Your task to perform on an android device: open the mobile data screen to see how much data has been used Image 0: 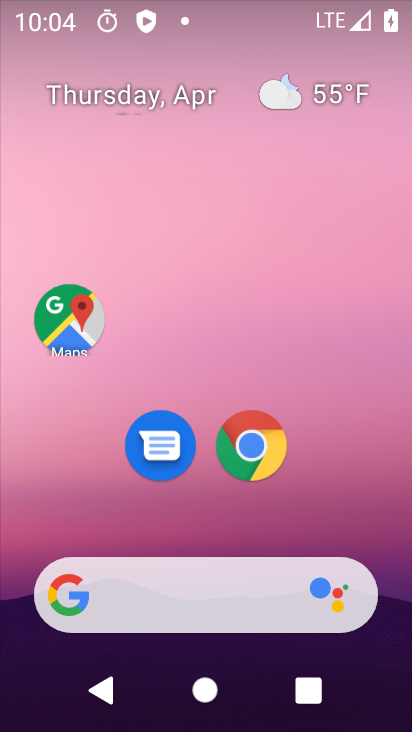
Step 0: drag from (349, 460) to (352, 15)
Your task to perform on an android device: open the mobile data screen to see how much data has been used Image 1: 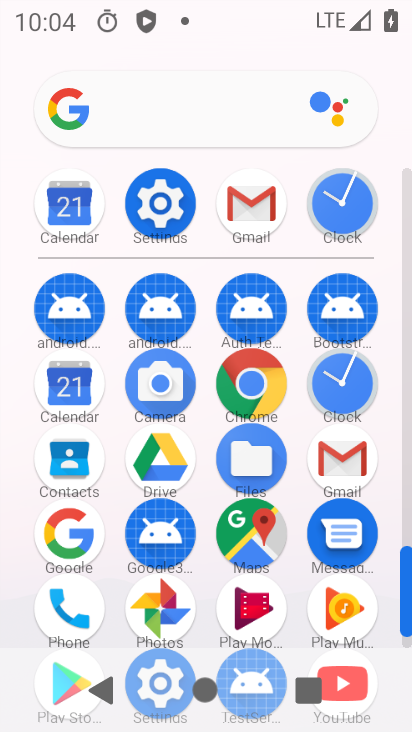
Step 1: click (148, 219)
Your task to perform on an android device: open the mobile data screen to see how much data has been used Image 2: 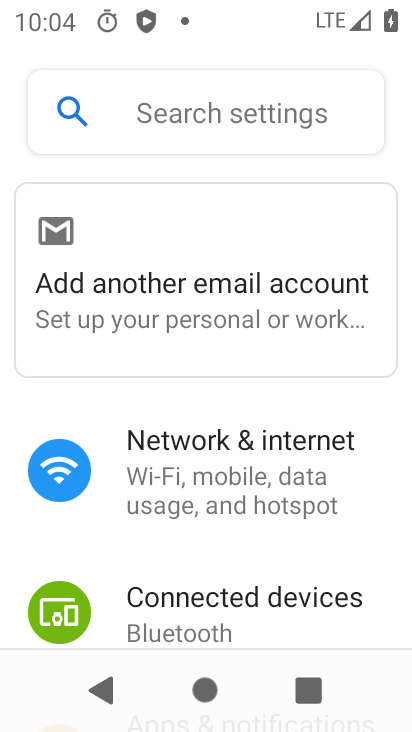
Step 2: click (209, 486)
Your task to perform on an android device: open the mobile data screen to see how much data has been used Image 3: 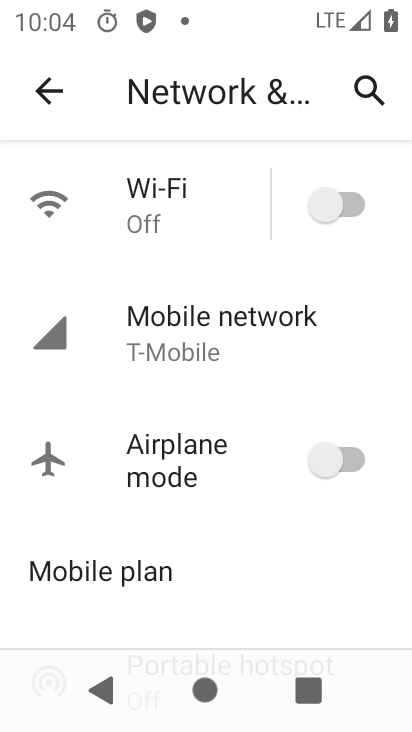
Step 3: click (193, 346)
Your task to perform on an android device: open the mobile data screen to see how much data has been used Image 4: 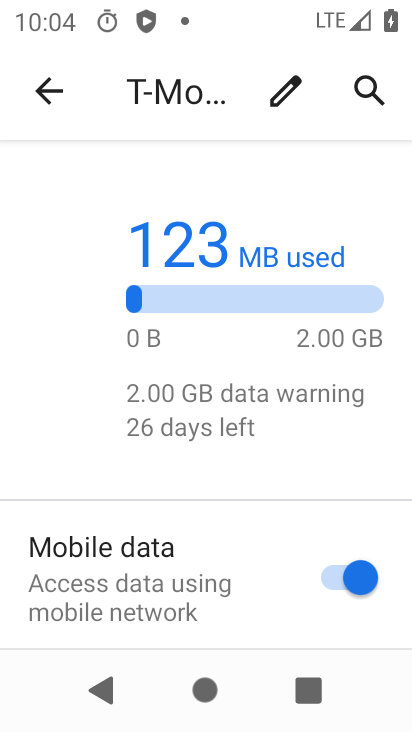
Step 4: drag from (162, 559) to (166, 187)
Your task to perform on an android device: open the mobile data screen to see how much data has been used Image 5: 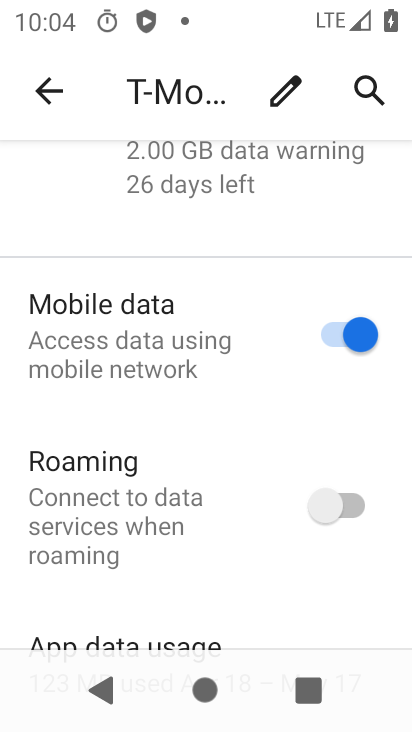
Step 5: drag from (169, 418) to (169, 76)
Your task to perform on an android device: open the mobile data screen to see how much data has been used Image 6: 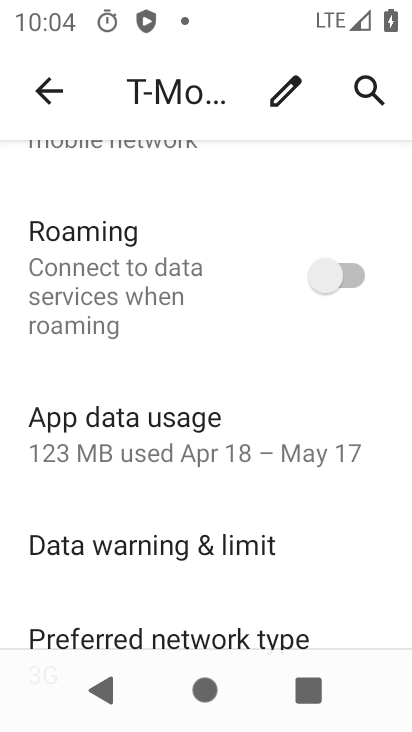
Step 6: click (165, 438)
Your task to perform on an android device: open the mobile data screen to see how much data has been used Image 7: 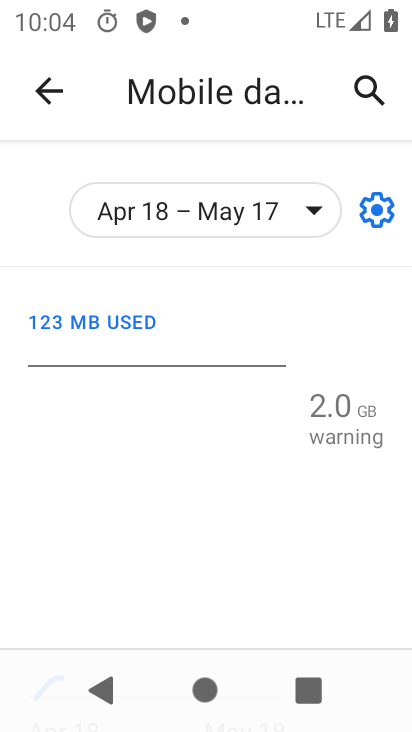
Step 7: task complete